Your task to perform on an android device: toggle javascript in the chrome app Image 0: 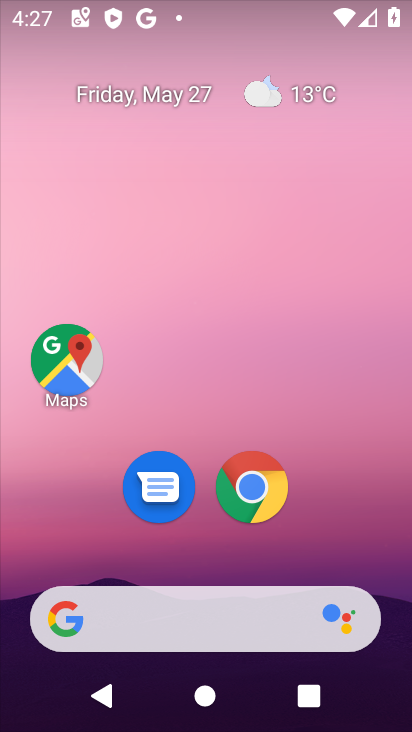
Step 0: click (239, 485)
Your task to perform on an android device: toggle javascript in the chrome app Image 1: 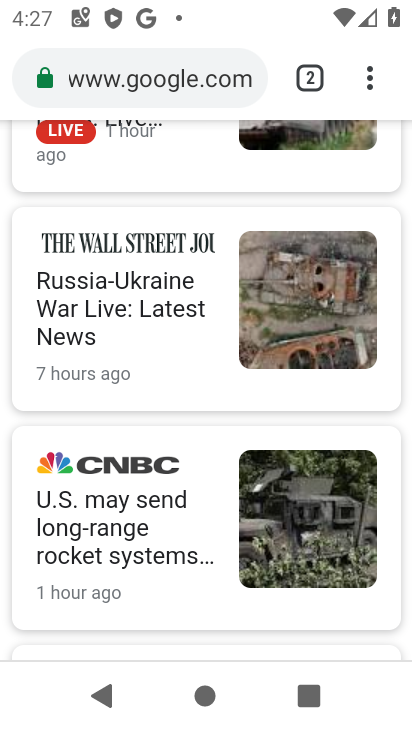
Step 1: drag from (368, 77) to (146, 545)
Your task to perform on an android device: toggle javascript in the chrome app Image 2: 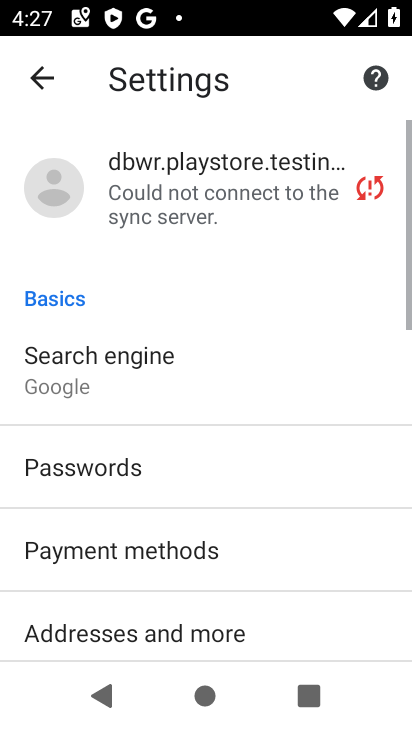
Step 2: drag from (214, 562) to (249, 132)
Your task to perform on an android device: toggle javascript in the chrome app Image 3: 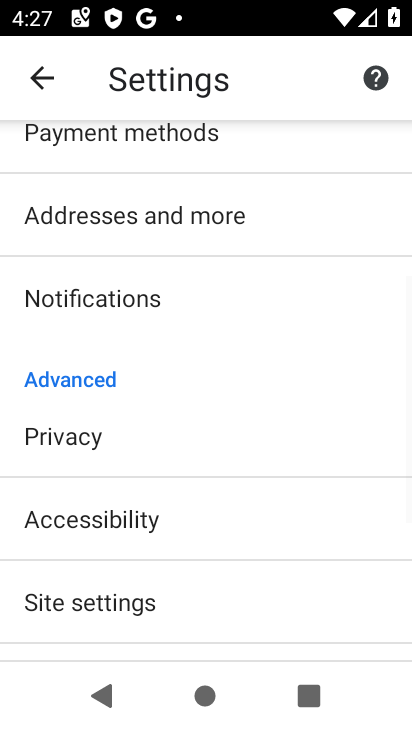
Step 3: drag from (183, 554) to (214, 156)
Your task to perform on an android device: toggle javascript in the chrome app Image 4: 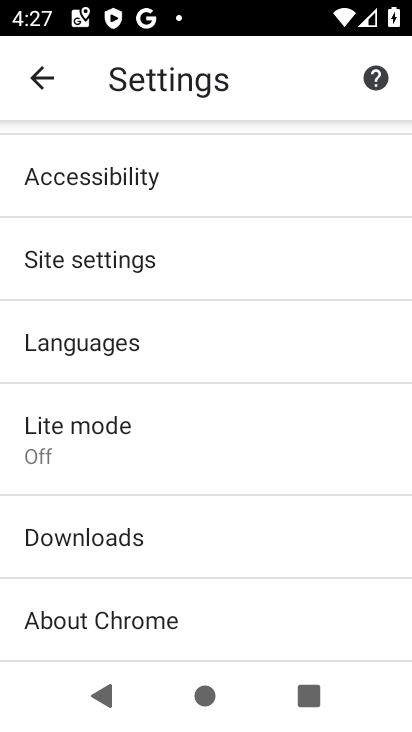
Step 4: drag from (169, 480) to (202, 180)
Your task to perform on an android device: toggle javascript in the chrome app Image 5: 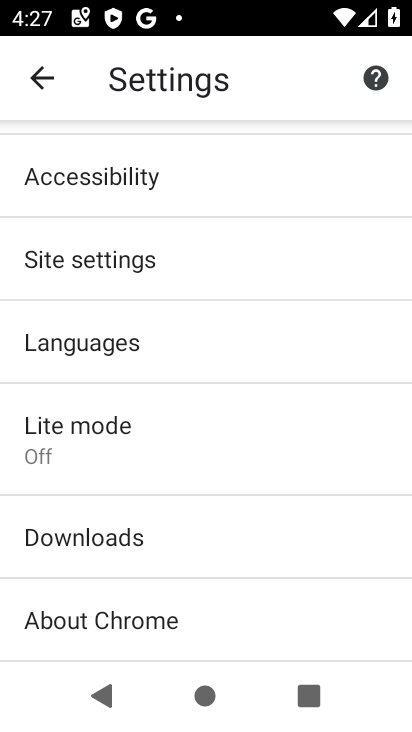
Step 5: click (98, 258)
Your task to perform on an android device: toggle javascript in the chrome app Image 6: 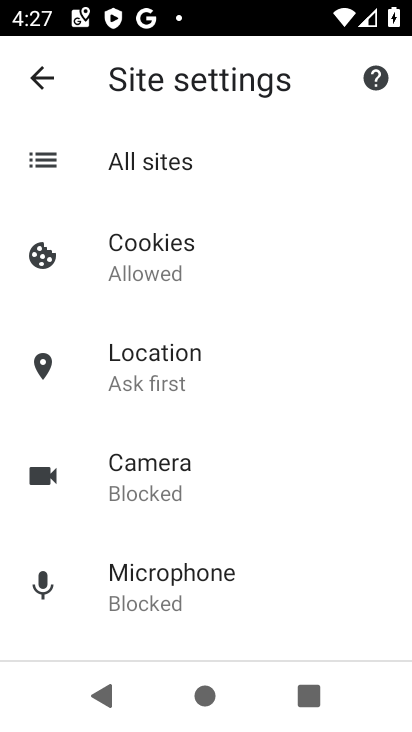
Step 6: drag from (219, 586) to (260, 213)
Your task to perform on an android device: toggle javascript in the chrome app Image 7: 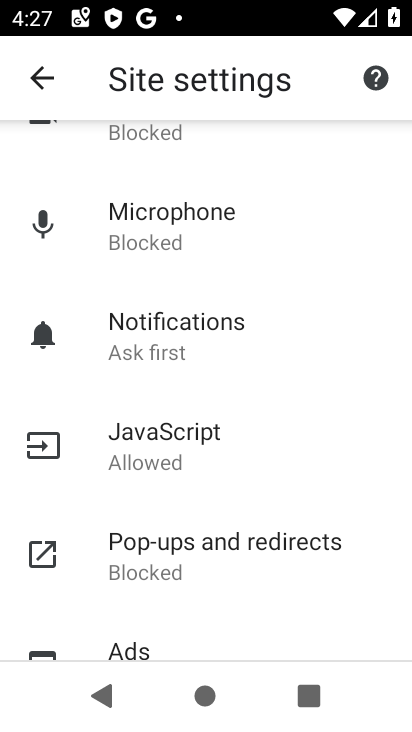
Step 7: click (116, 463)
Your task to perform on an android device: toggle javascript in the chrome app Image 8: 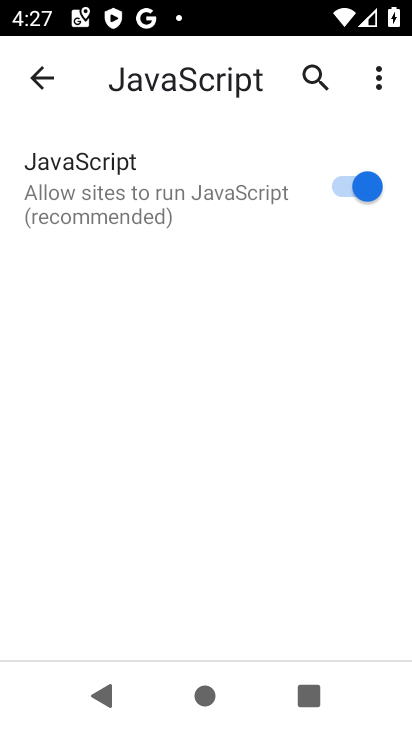
Step 8: click (366, 191)
Your task to perform on an android device: toggle javascript in the chrome app Image 9: 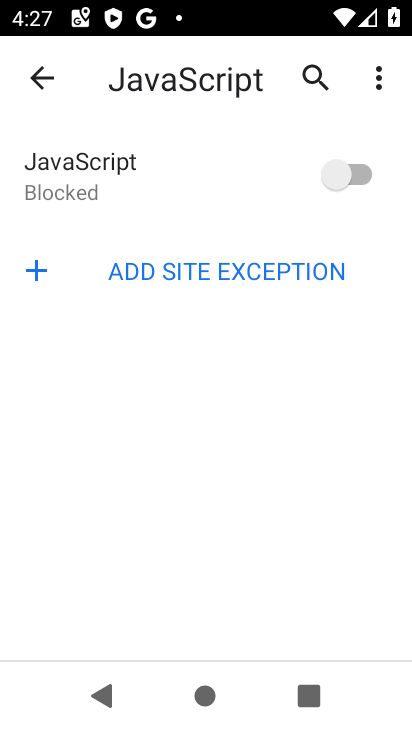
Step 9: task complete